Your task to perform on an android device: check out phone information Image 0: 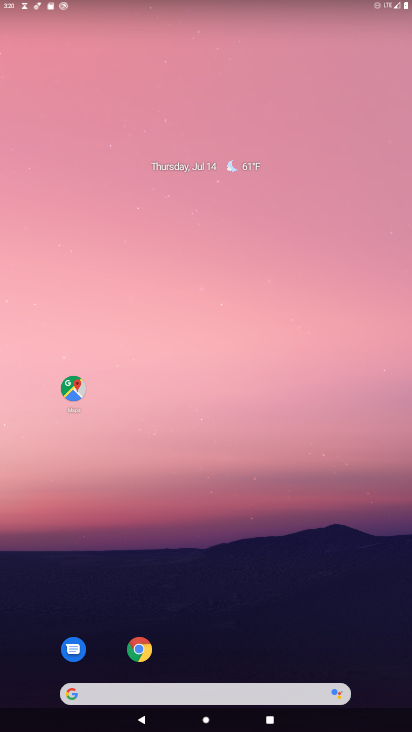
Step 0: drag from (226, 689) to (230, 185)
Your task to perform on an android device: check out phone information Image 1: 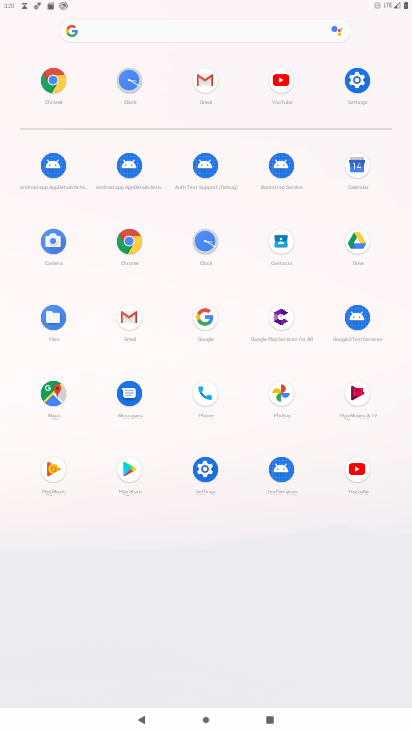
Step 1: click (360, 89)
Your task to perform on an android device: check out phone information Image 2: 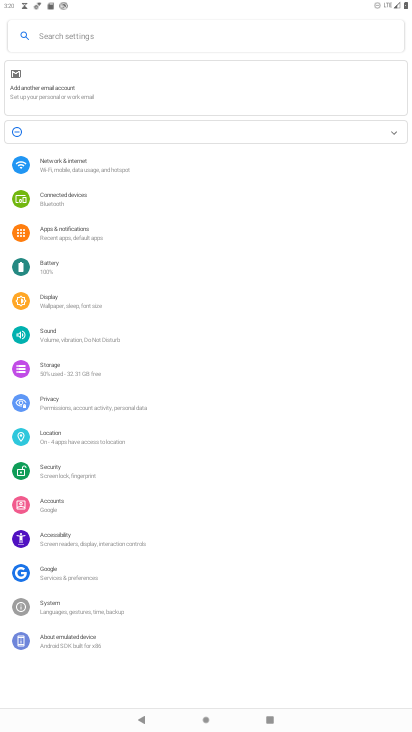
Step 2: click (82, 642)
Your task to perform on an android device: check out phone information Image 3: 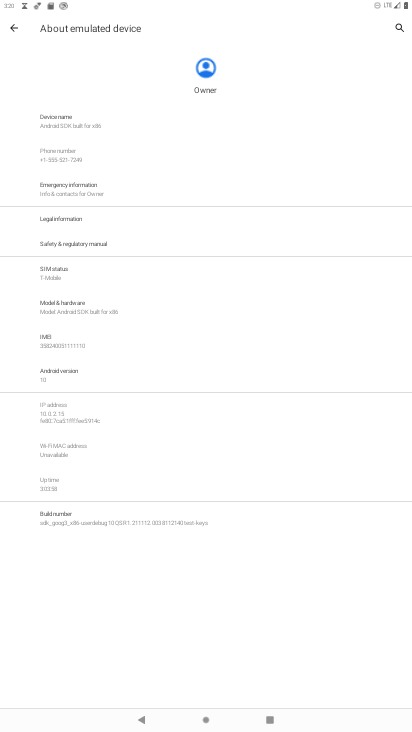
Step 3: task complete